Your task to perform on an android device: What's the weather? Image 0: 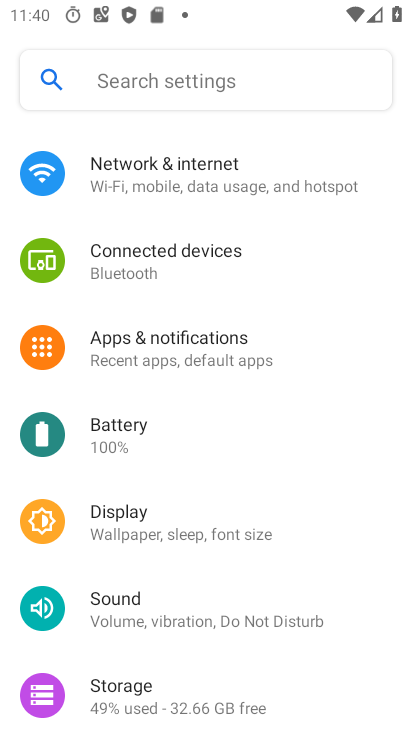
Step 0: press home button
Your task to perform on an android device: What's the weather? Image 1: 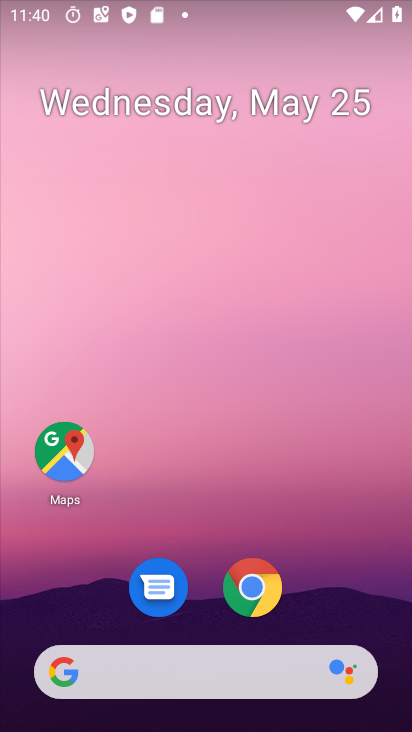
Step 1: drag from (252, 688) to (211, 122)
Your task to perform on an android device: What's the weather? Image 2: 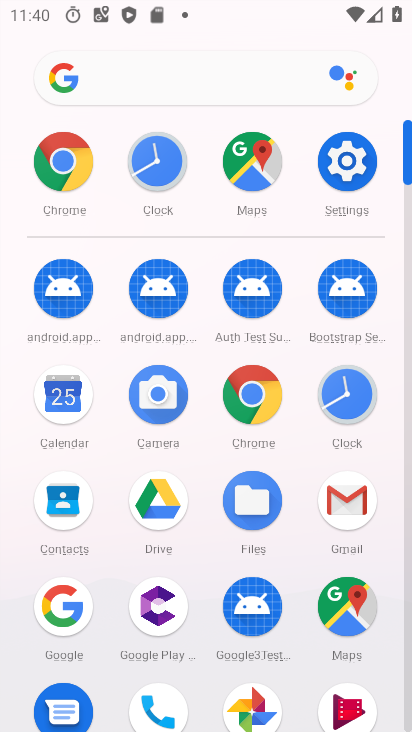
Step 2: click (121, 75)
Your task to perform on an android device: What's the weather? Image 3: 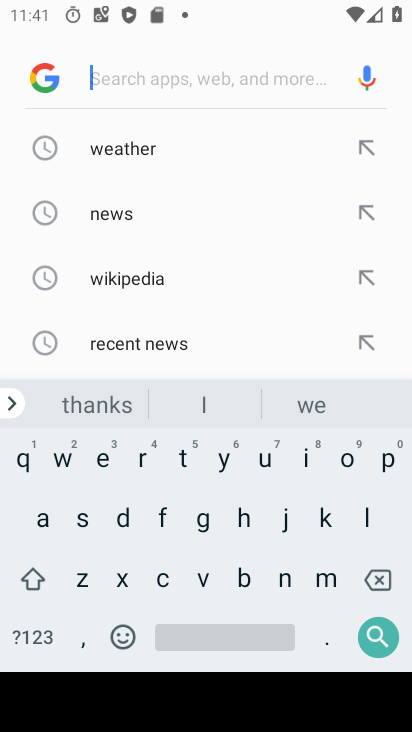
Step 3: click (153, 157)
Your task to perform on an android device: What's the weather? Image 4: 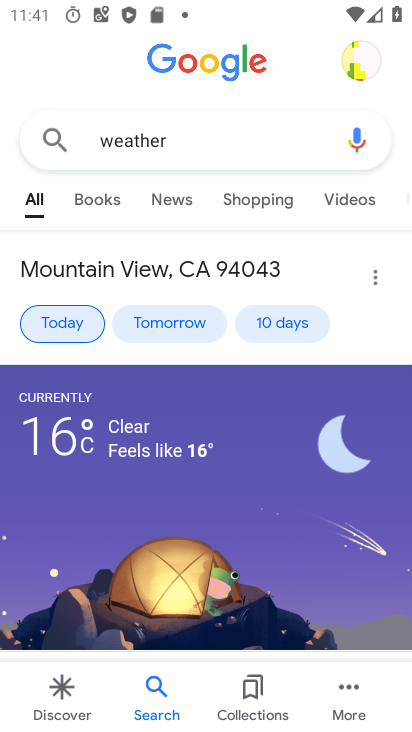
Step 4: task complete